Your task to perform on an android device: Open Google Image 0: 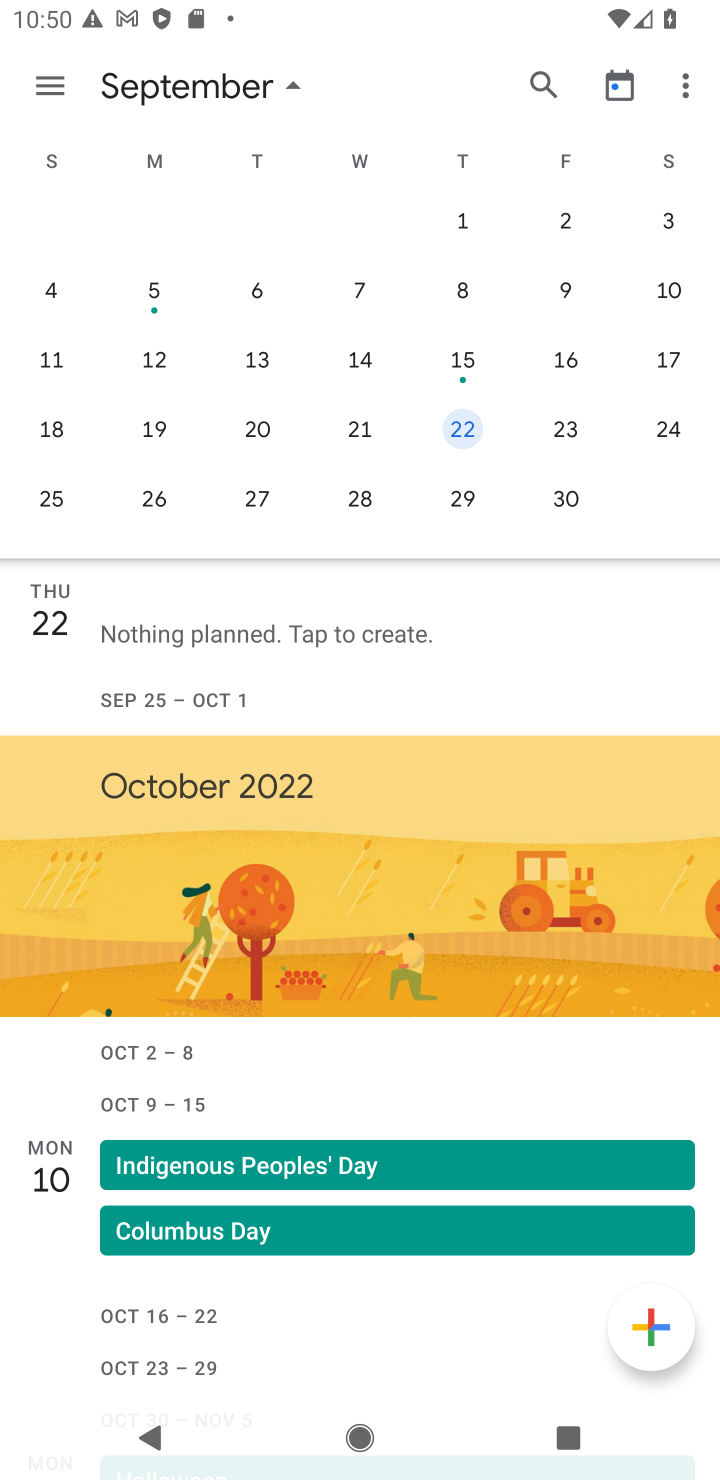
Step 0: press home button
Your task to perform on an android device: Open Google Image 1: 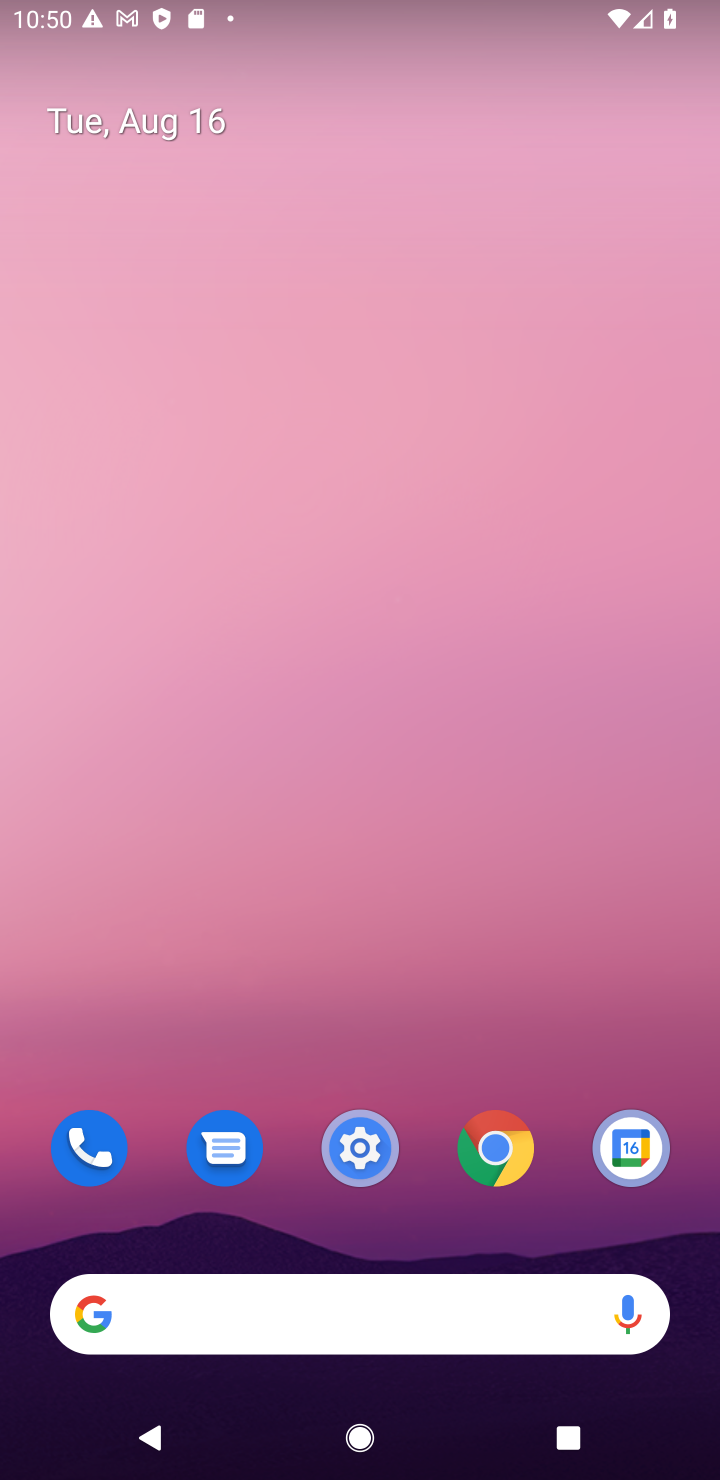
Step 1: drag from (397, 1209) to (338, 326)
Your task to perform on an android device: Open Google Image 2: 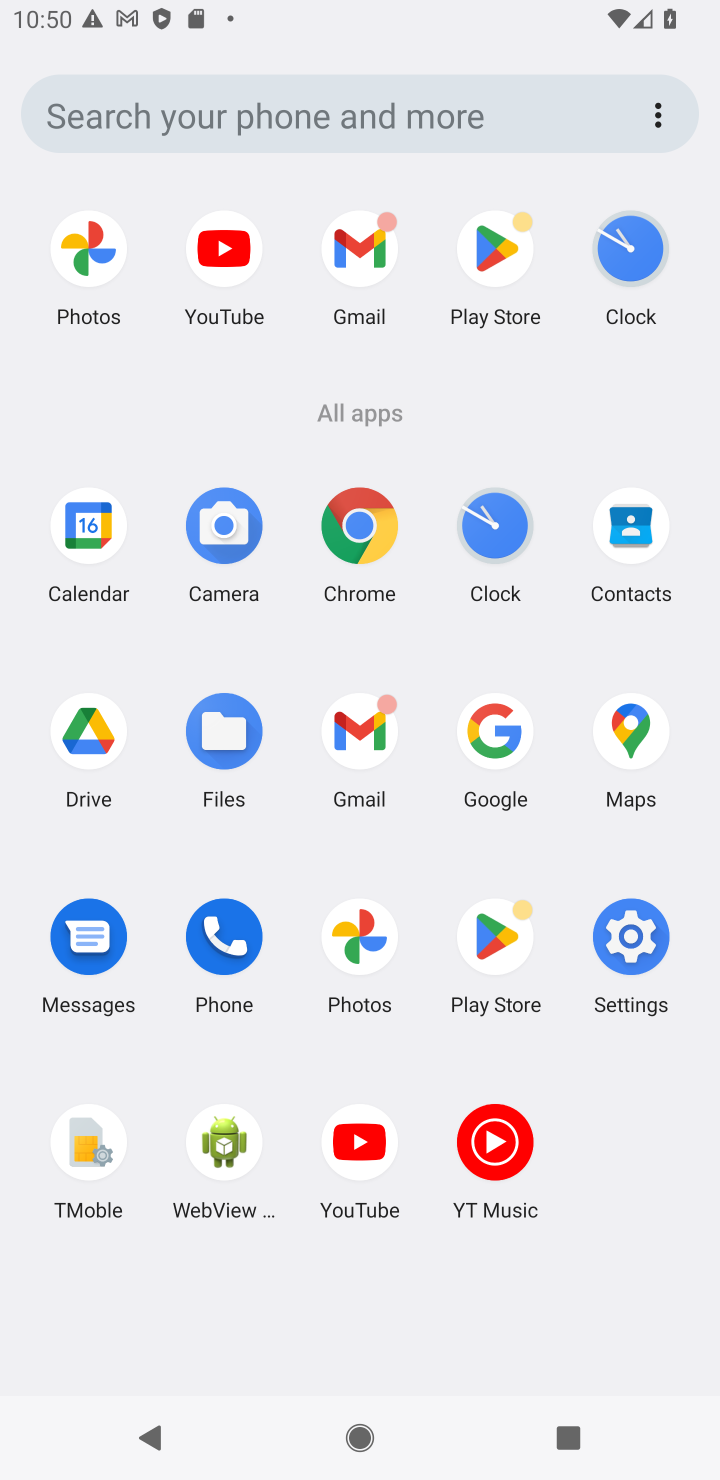
Step 2: click (503, 741)
Your task to perform on an android device: Open Google Image 3: 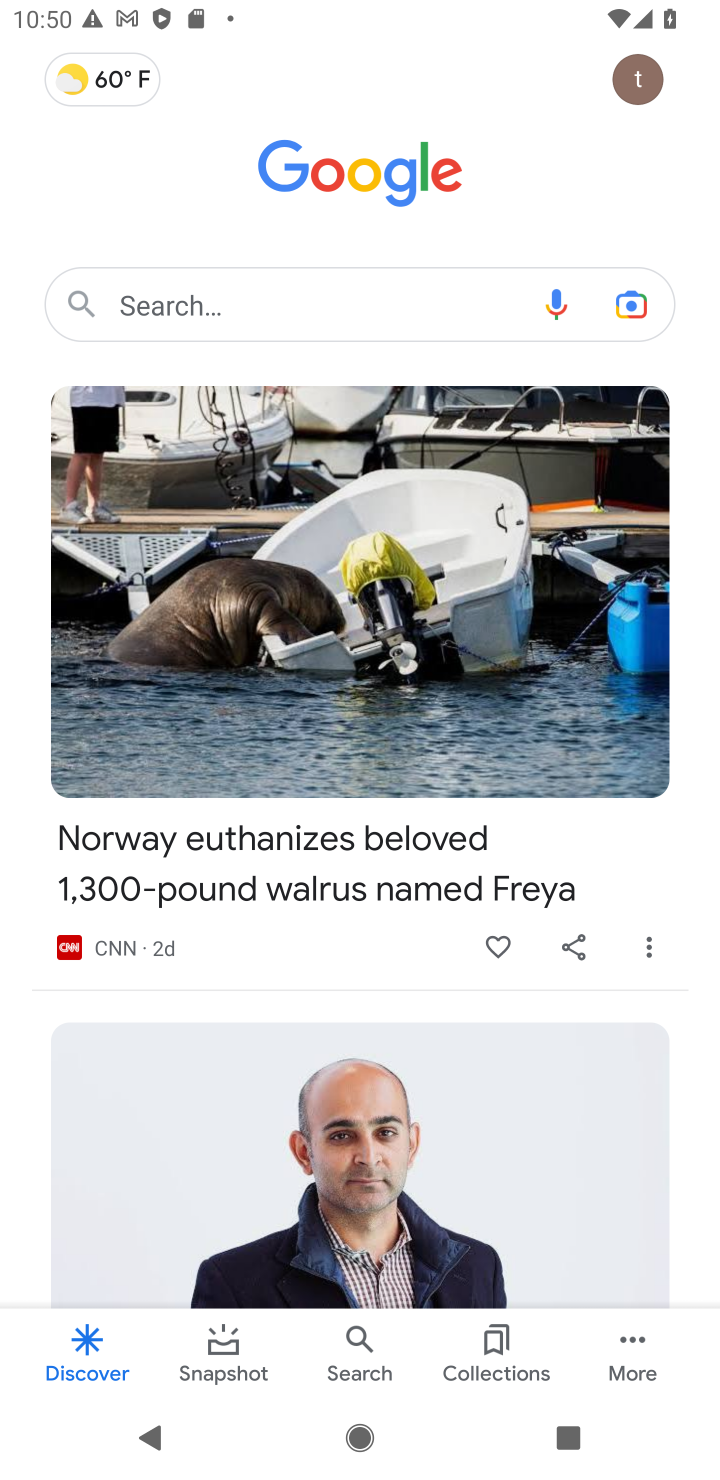
Step 3: task complete